Your task to perform on an android device: What's the weather today? Image 0: 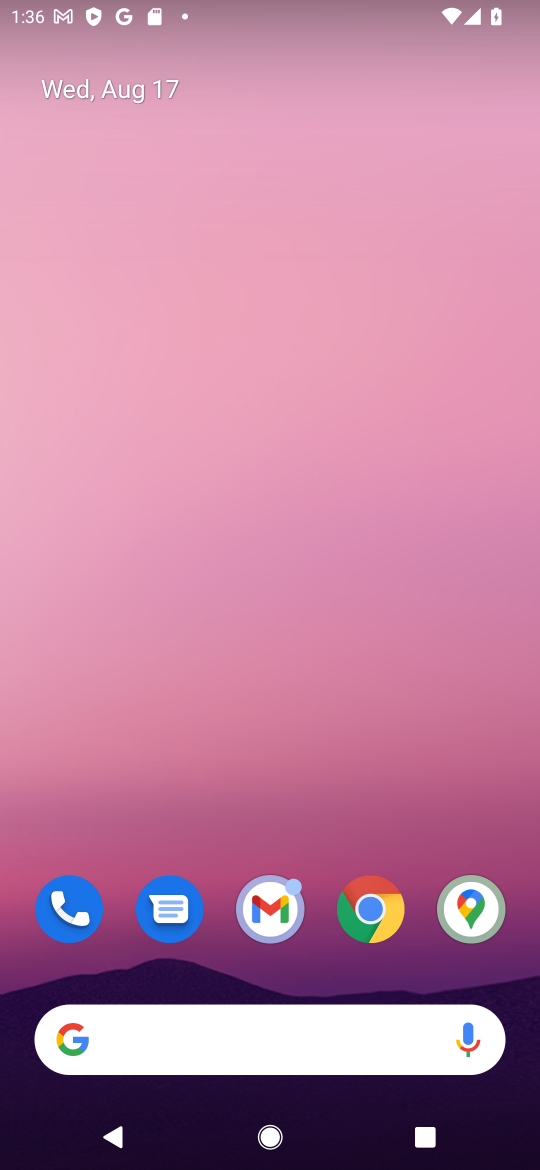
Step 0: click (405, 1025)
Your task to perform on an android device: What's the weather today? Image 1: 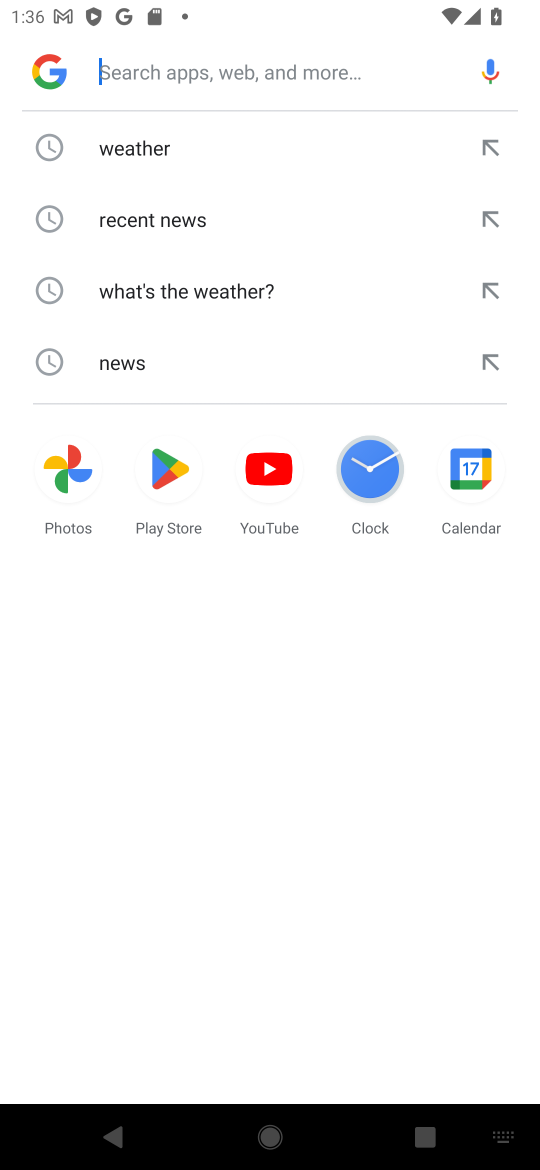
Step 1: type "What's the weather today?"
Your task to perform on an android device: What's the weather today? Image 2: 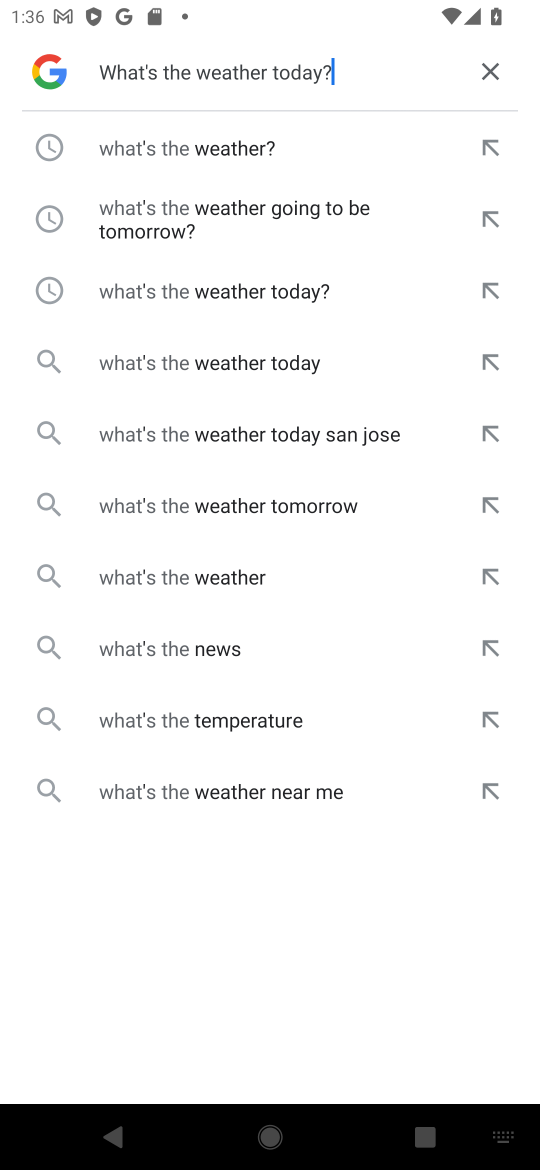
Step 2: type ""
Your task to perform on an android device: What's the weather today? Image 3: 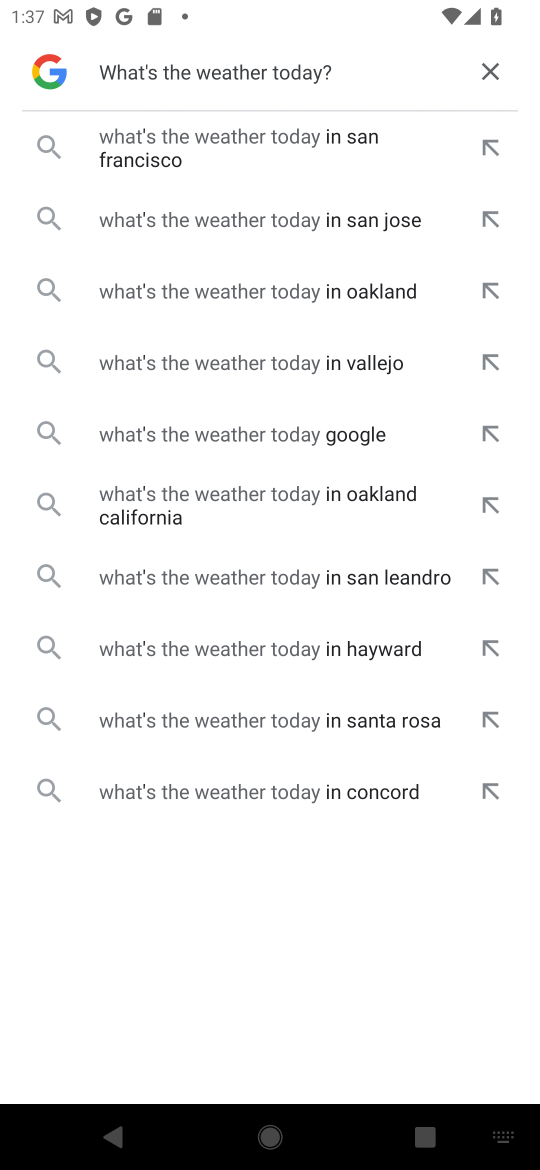
Step 3: type ""
Your task to perform on an android device: What's the weather today? Image 4: 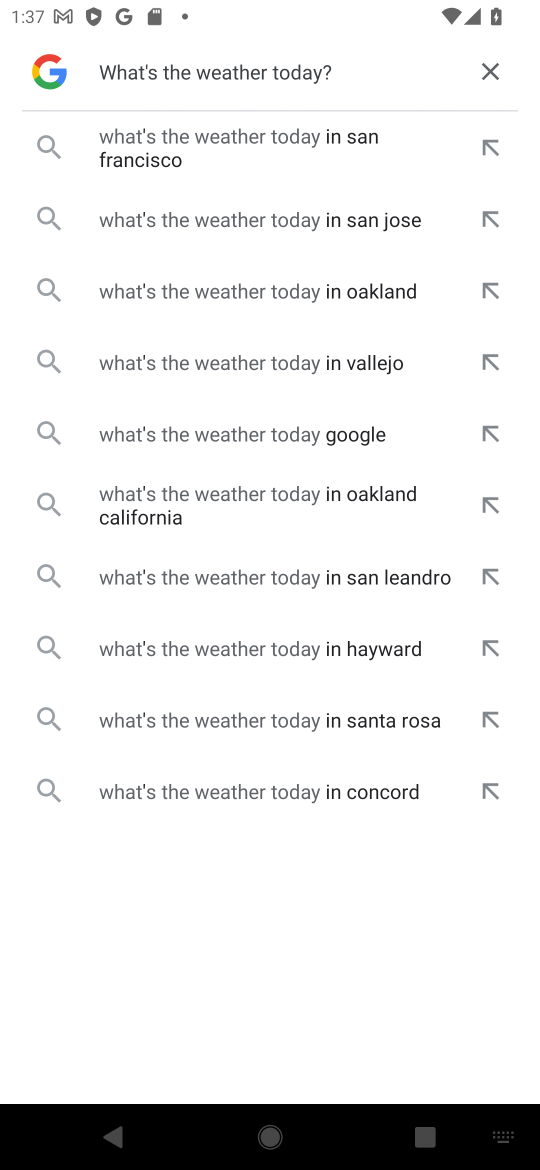
Step 4: press enter
Your task to perform on an android device: What's the weather today? Image 5: 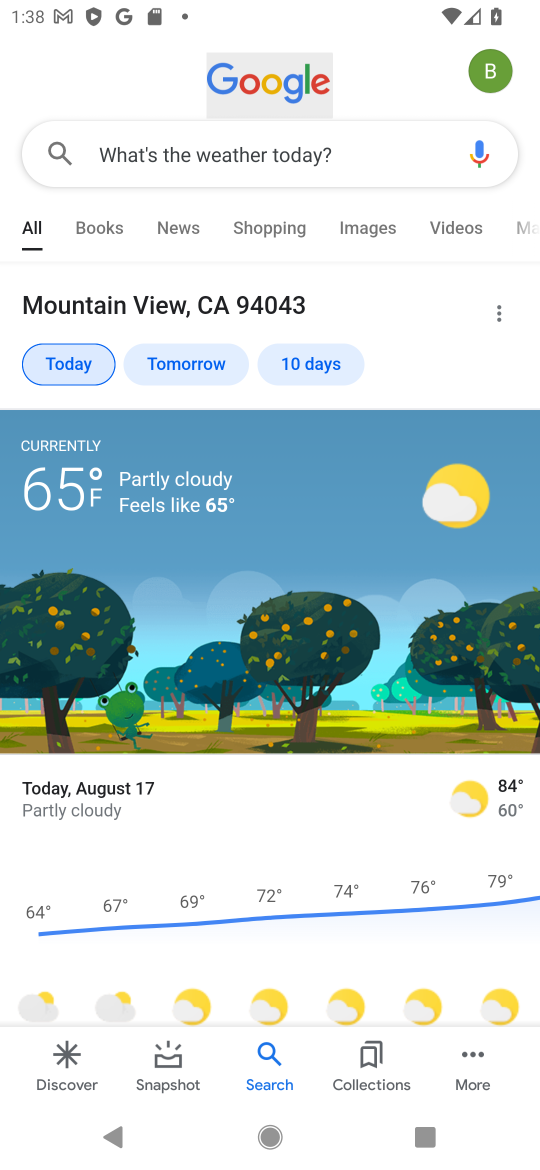
Step 5: press home button
Your task to perform on an android device: What's the weather today? Image 6: 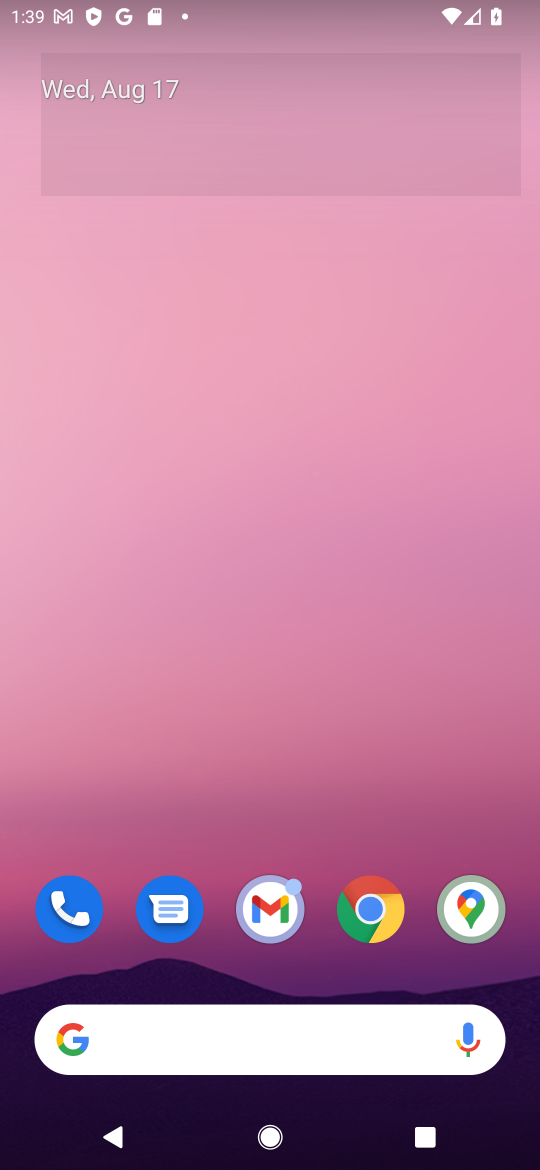
Step 6: click (370, 1038)
Your task to perform on an android device: What's the weather today? Image 7: 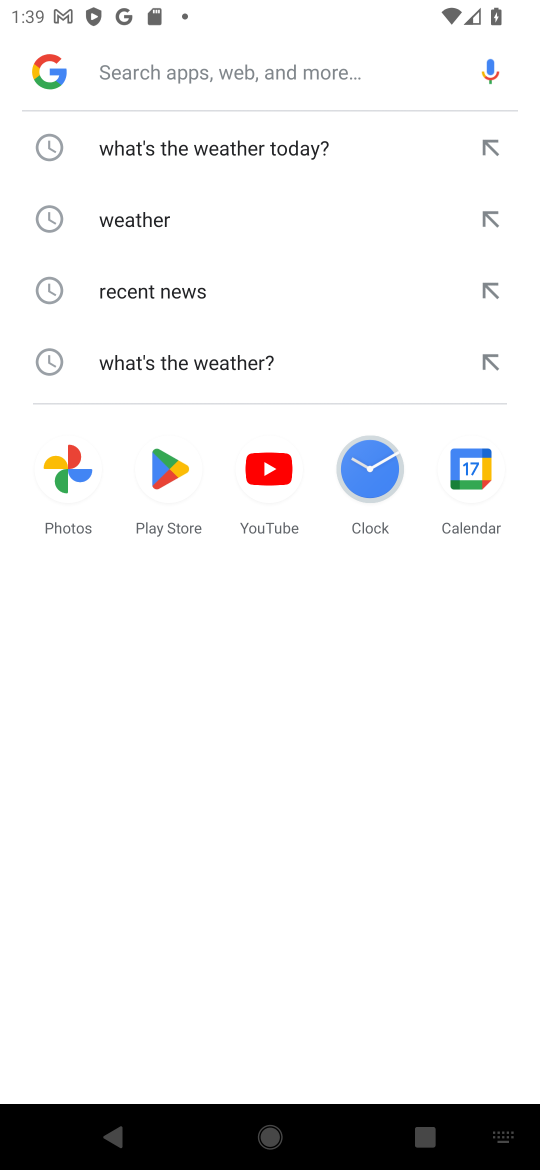
Step 7: type "What's the weather today?"
Your task to perform on an android device: What's the weather today? Image 8: 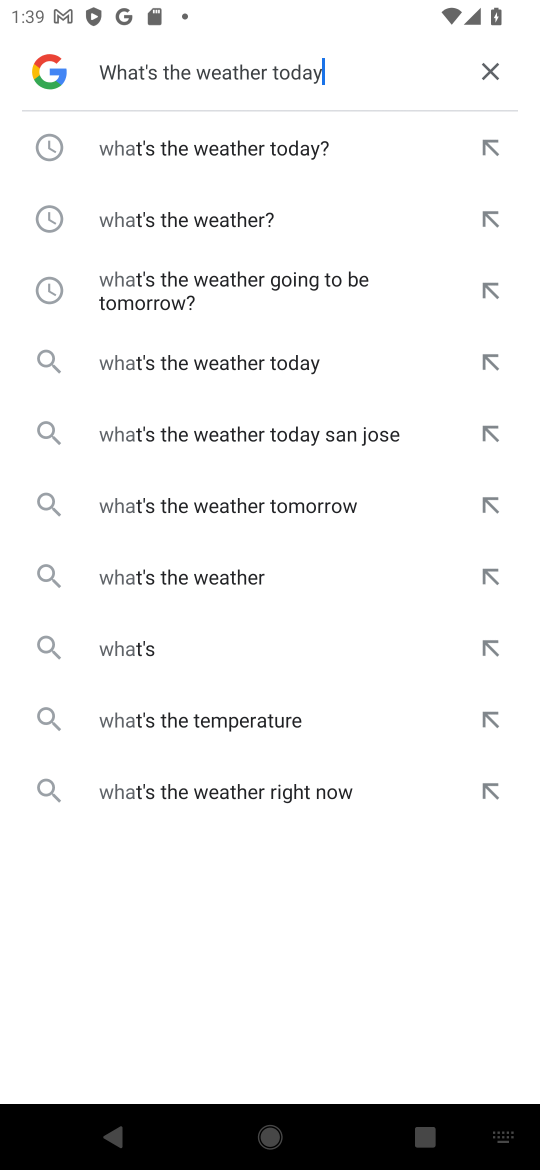
Step 8: press enter
Your task to perform on an android device: What's the weather today? Image 9: 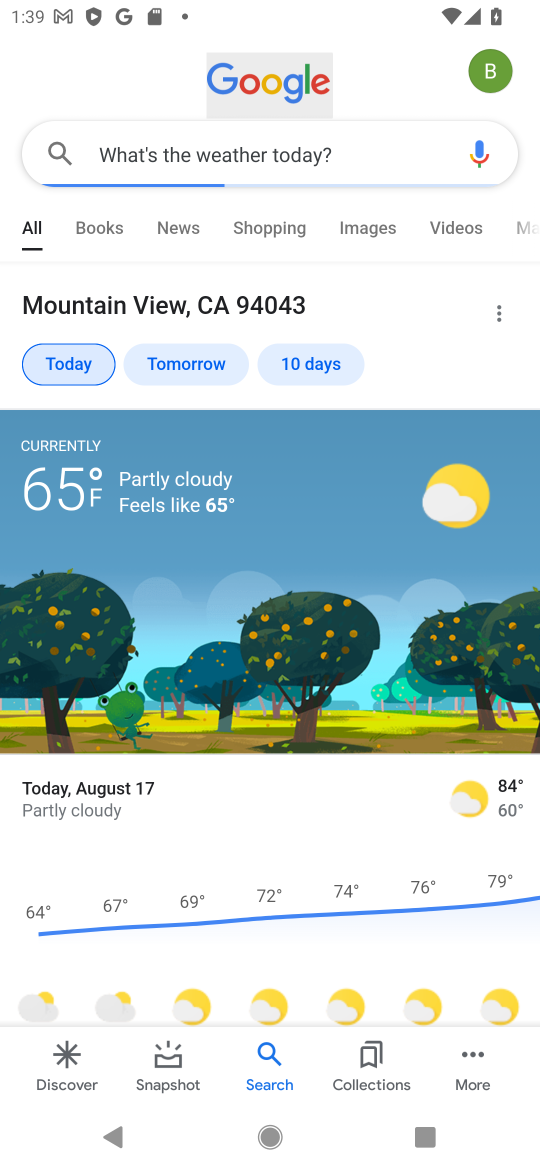
Step 9: task complete